Your task to perform on an android device: Search for 12ft 120W LED tube light on home depot Image 0: 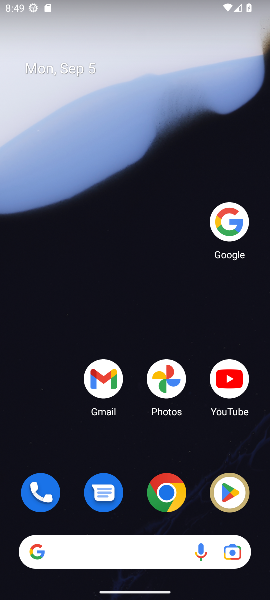
Step 0: click (204, 207)
Your task to perform on an android device: Search for 12ft 120W LED tube light on home depot Image 1: 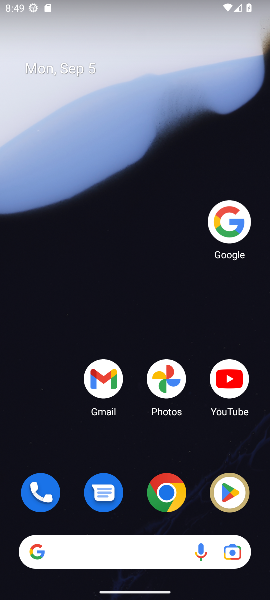
Step 1: click (220, 216)
Your task to perform on an android device: Search for 12ft 120W LED tube light on home depot Image 2: 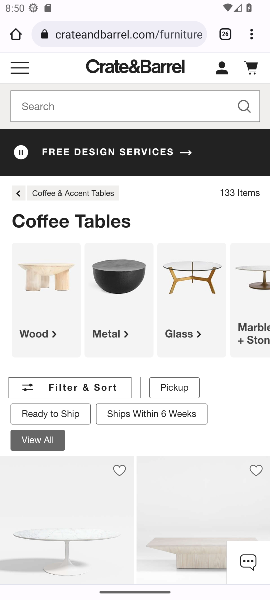
Step 2: press home button
Your task to perform on an android device: Search for 12ft 120W LED tube light on home depot Image 3: 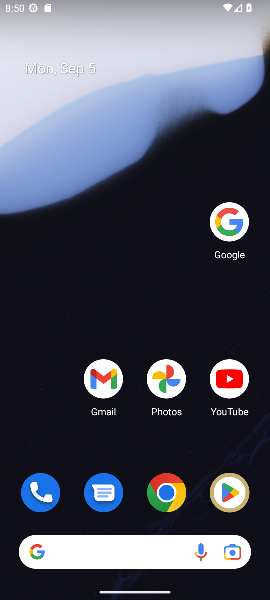
Step 3: click (232, 220)
Your task to perform on an android device: Search for 12ft 120W LED tube light on home depot Image 4: 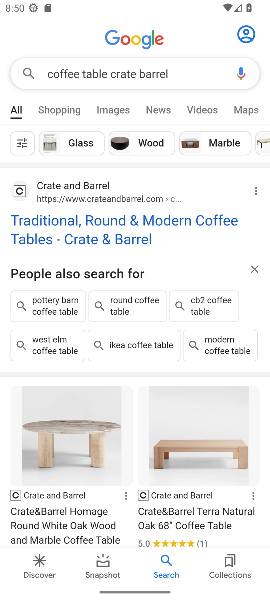
Step 4: click (186, 66)
Your task to perform on an android device: Search for 12ft 120W LED tube light on home depot Image 5: 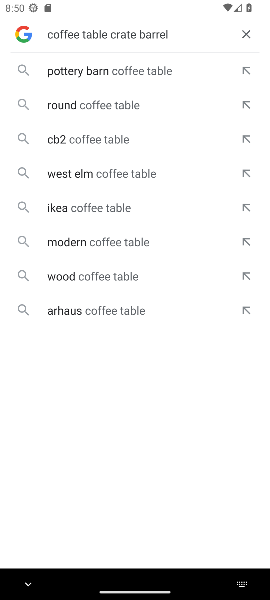
Step 5: click (252, 26)
Your task to perform on an android device: Search for 12ft 120W LED tube light on home depot Image 6: 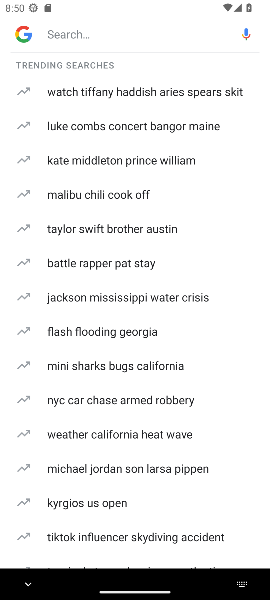
Step 6: click (146, 38)
Your task to perform on an android device: Search for 12ft 120W LED tube light on home depot Image 7: 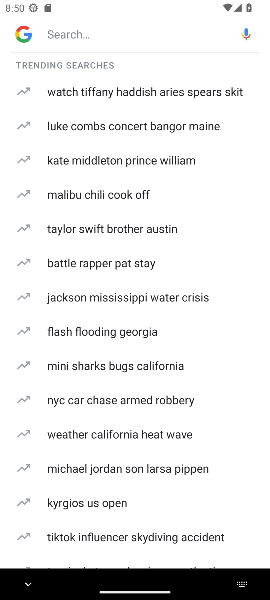
Step 7: type "12ft 120W LED tube light on home depot "
Your task to perform on an android device: Search for 12ft 120W LED tube light on home depot Image 8: 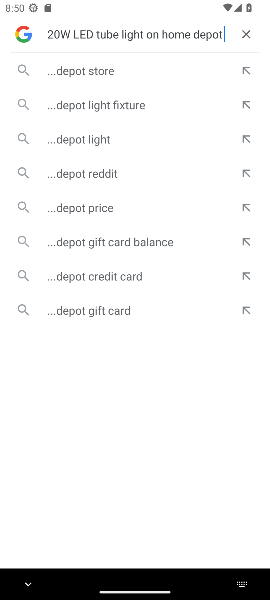
Step 8: click (93, 69)
Your task to perform on an android device: Search for 12ft 120W LED tube light on home depot Image 9: 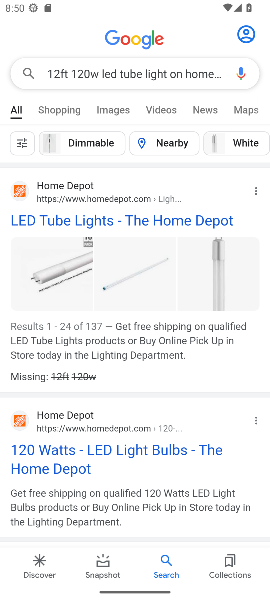
Step 9: drag from (127, 495) to (159, 209)
Your task to perform on an android device: Search for 12ft 120W LED tube light on home depot Image 10: 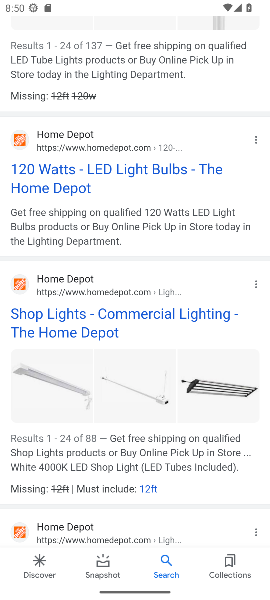
Step 10: drag from (144, 481) to (153, 227)
Your task to perform on an android device: Search for 12ft 120W LED tube light on home depot Image 11: 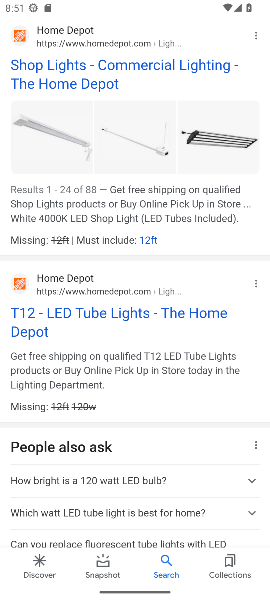
Step 11: drag from (139, 458) to (144, 186)
Your task to perform on an android device: Search for 12ft 120W LED tube light on home depot Image 12: 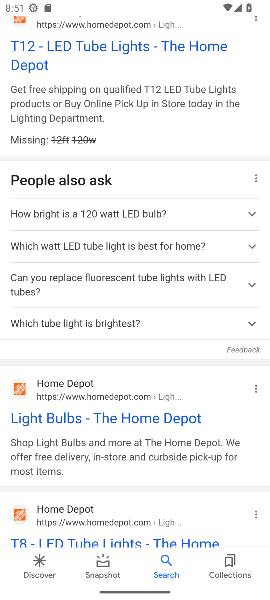
Step 12: drag from (111, 94) to (112, 300)
Your task to perform on an android device: Search for 12ft 120W LED tube light on home depot Image 13: 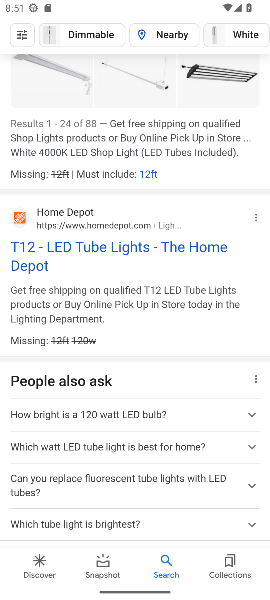
Step 13: click (102, 245)
Your task to perform on an android device: Search for 12ft 120W LED tube light on home depot Image 14: 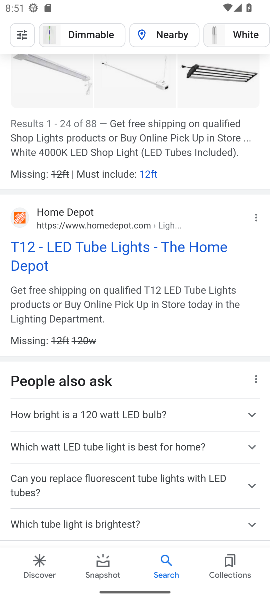
Step 14: task complete